Your task to perform on an android device: open a bookmark in the chrome app Image 0: 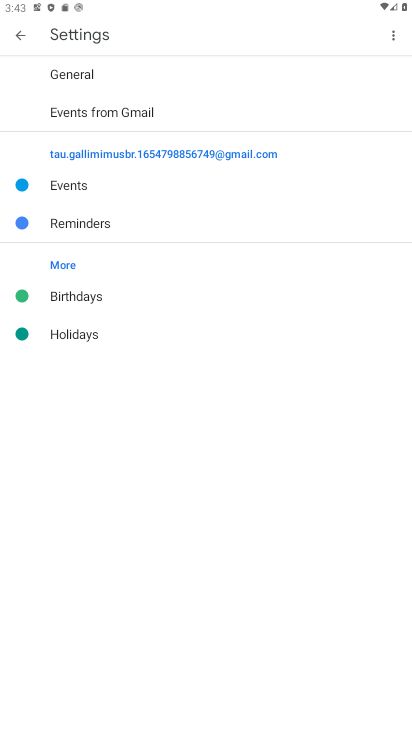
Step 0: press home button
Your task to perform on an android device: open a bookmark in the chrome app Image 1: 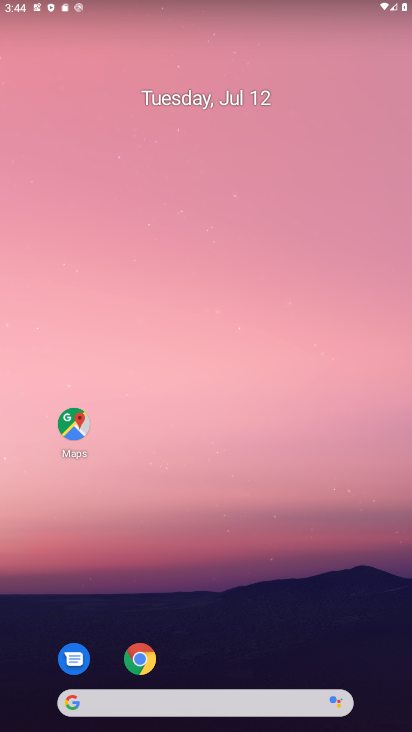
Step 1: click (139, 655)
Your task to perform on an android device: open a bookmark in the chrome app Image 2: 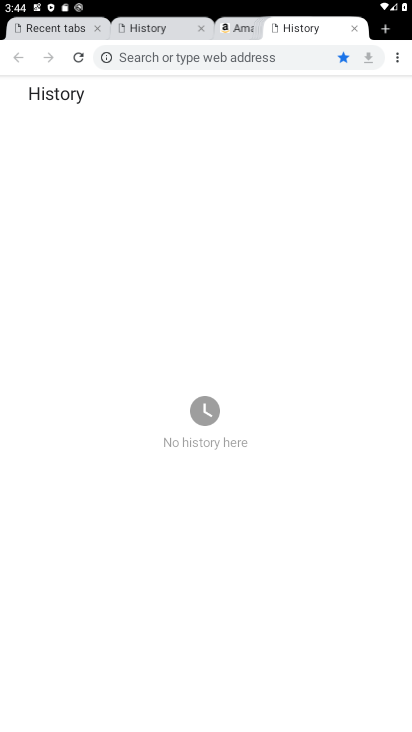
Step 2: click (395, 59)
Your task to perform on an android device: open a bookmark in the chrome app Image 3: 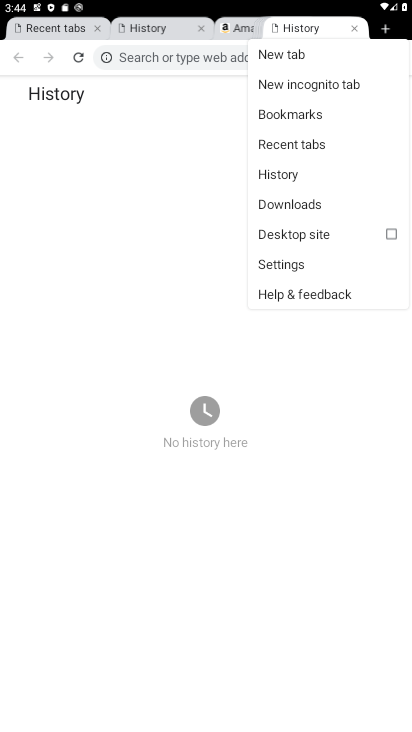
Step 3: click (300, 109)
Your task to perform on an android device: open a bookmark in the chrome app Image 4: 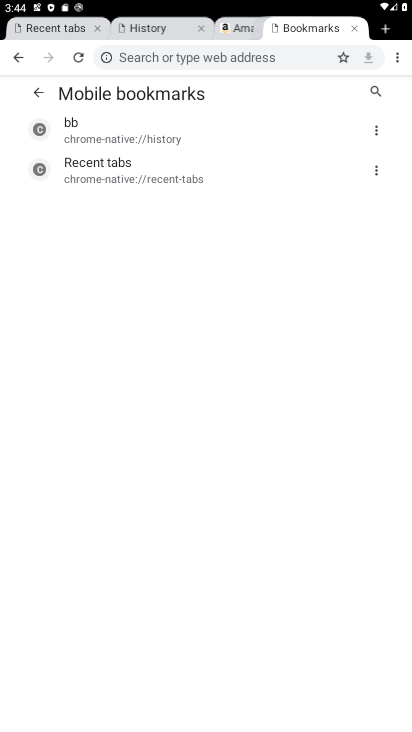
Step 4: click (107, 138)
Your task to perform on an android device: open a bookmark in the chrome app Image 5: 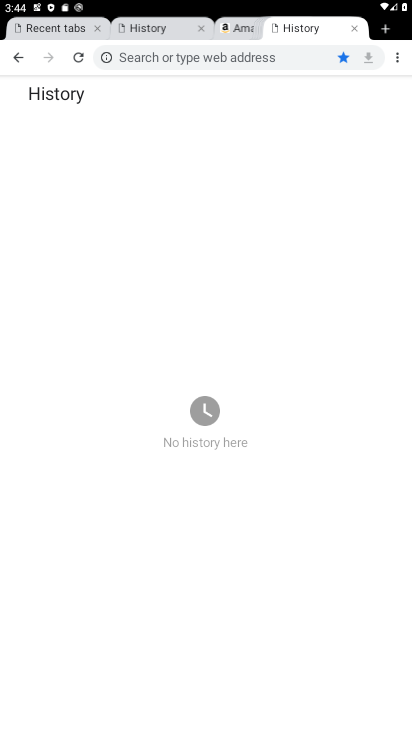
Step 5: task complete